Your task to perform on an android device: turn on notifications settings in the gmail app Image 0: 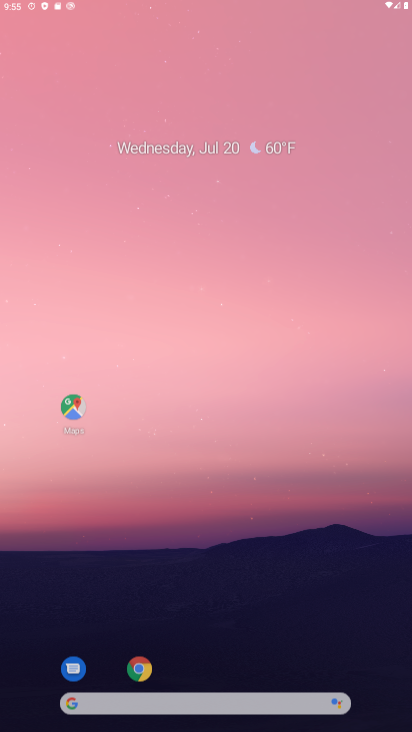
Step 0: drag from (215, 18) to (98, 23)
Your task to perform on an android device: turn on notifications settings in the gmail app Image 1: 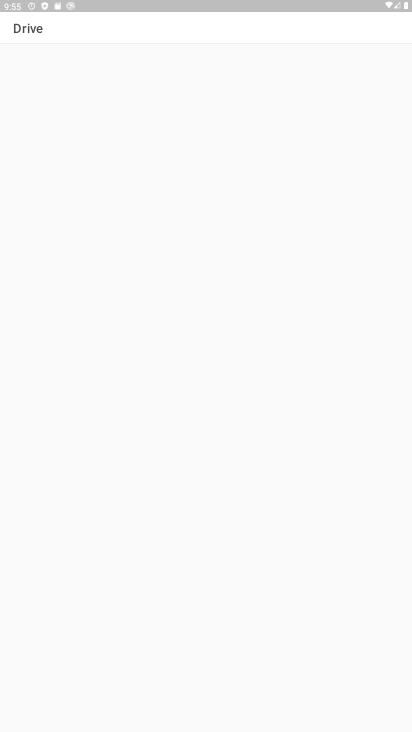
Step 1: press home button
Your task to perform on an android device: turn on notifications settings in the gmail app Image 2: 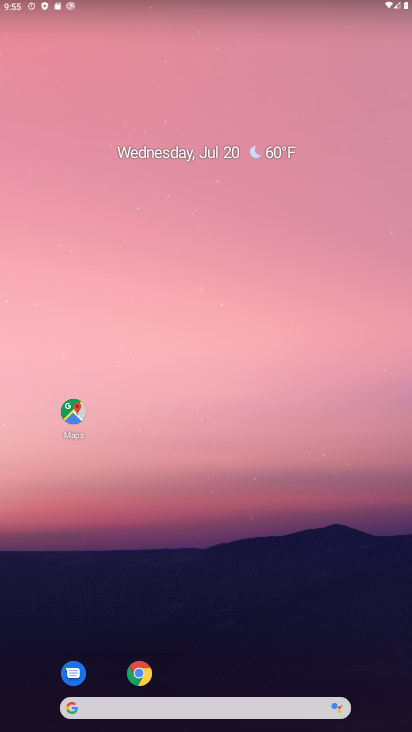
Step 2: drag from (197, 678) to (156, 1)
Your task to perform on an android device: turn on notifications settings in the gmail app Image 3: 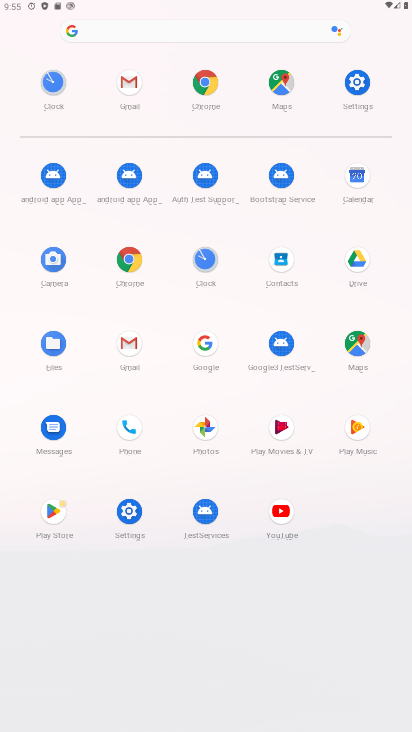
Step 3: click (127, 340)
Your task to perform on an android device: turn on notifications settings in the gmail app Image 4: 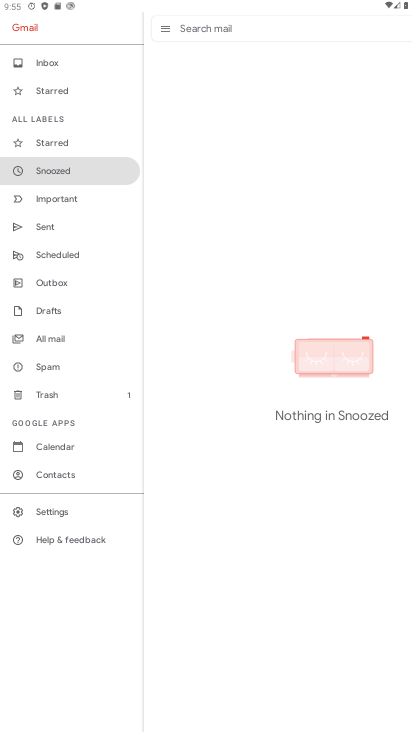
Step 4: click (43, 508)
Your task to perform on an android device: turn on notifications settings in the gmail app Image 5: 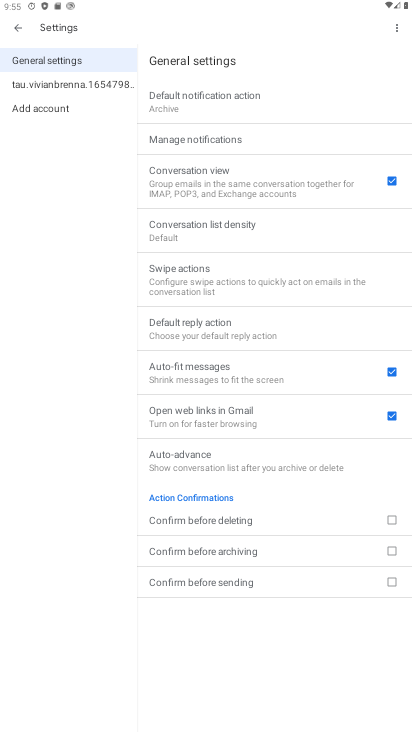
Step 5: click (227, 136)
Your task to perform on an android device: turn on notifications settings in the gmail app Image 6: 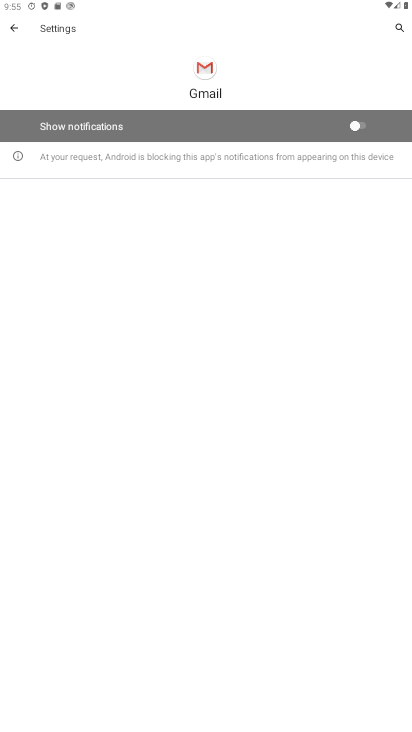
Step 6: click (253, 132)
Your task to perform on an android device: turn on notifications settings in the gmail app Image 7: 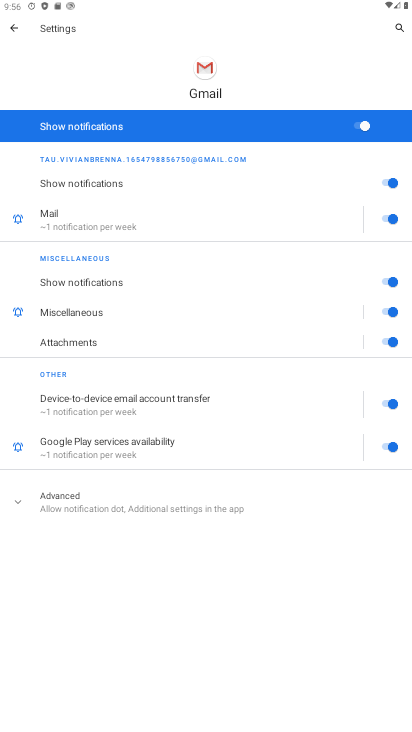
Step 7: task complete